Your task to perform on an android device: Open Chrome and go to the settings page Image 0: 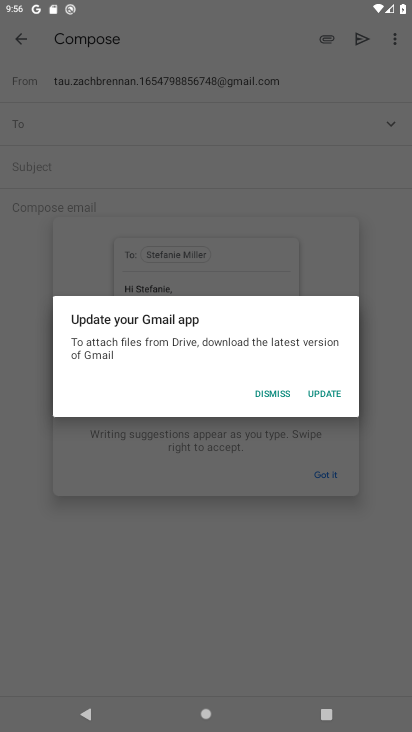
Step 0: press back button
Your task to perform on an android device: Open Chrome and go to the settings page Image 1: 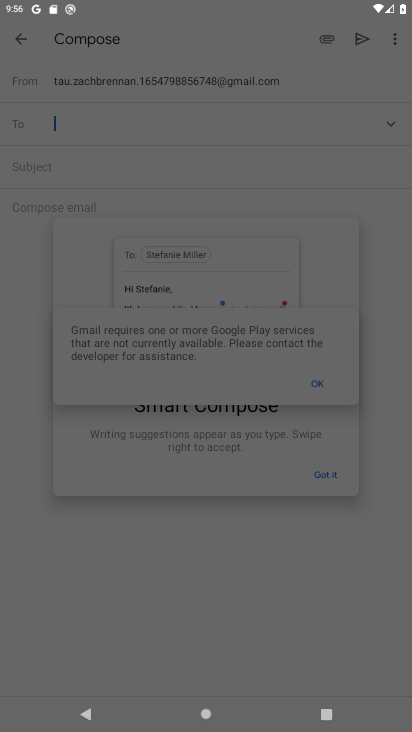
Step 1: press home button
Your task to perform on an android device: Open Chrome and go to the settings page Image 2: 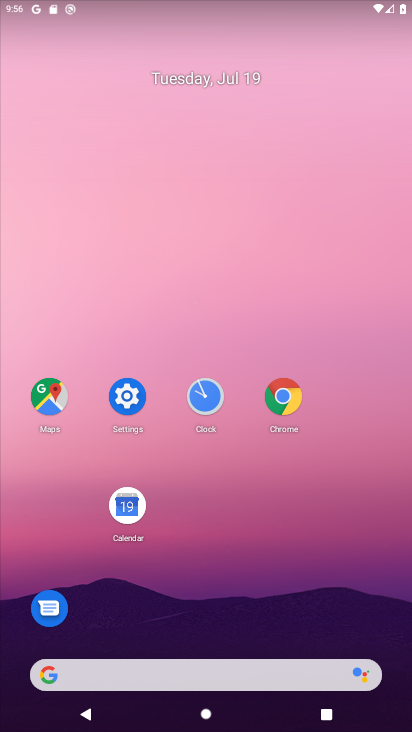
Step 2: click (278, 393)
Your task to perform on an android device: Open Chrome and go to the settings page Image 3: 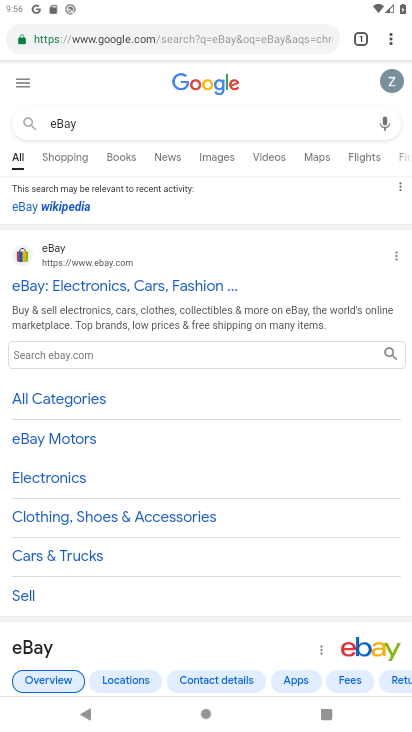
Step 3: click (392, 41)
Your task to perform on an android device: Open Chrome and go to the settings page Image 4: 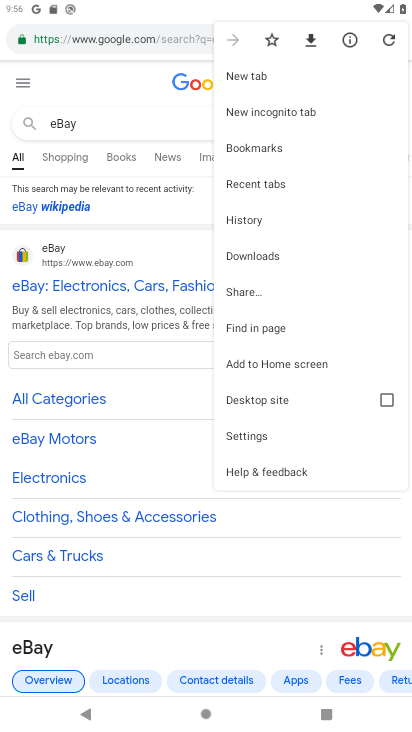
Step 4: click (240, 430)
Your task to perform on an android device: Open Chrome and go to the settings page Image 5: 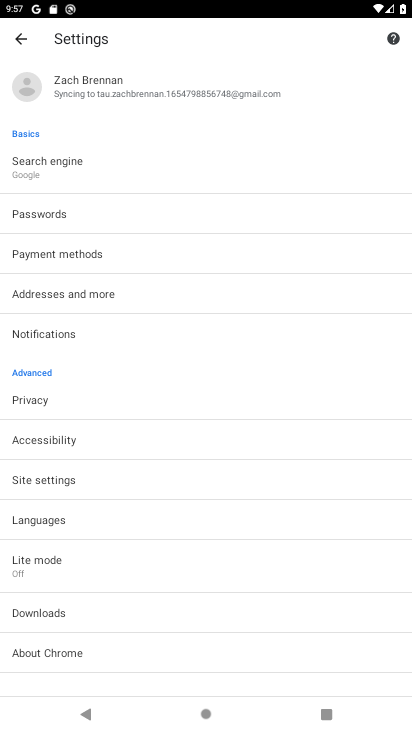
Step 5: task complete